Your task to perform on an android device: Show me popular videos on Youtube Image 0: 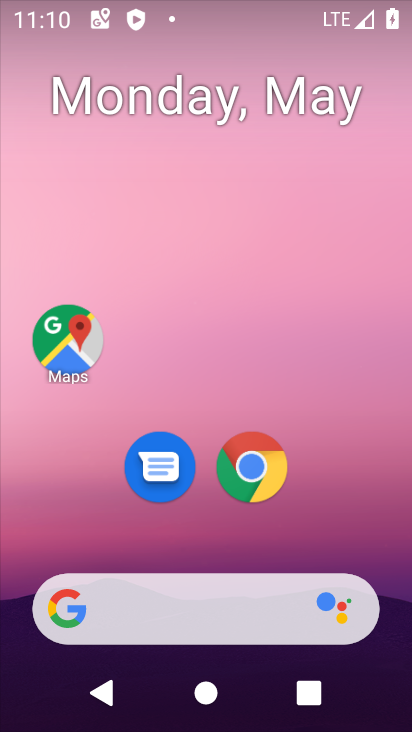
Step 0: drag from (383, 665) to (351, 67)
Your task to perform on an android device: Show me popular videos on Youtube Image 1: 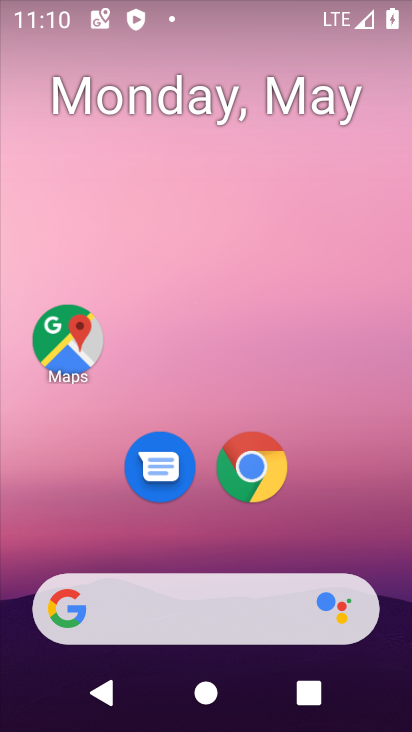
Step 1: drag from (394, 693) to (296, 3)
Your task to perform on an android device: Show me popular videos on Youtube Image 2: 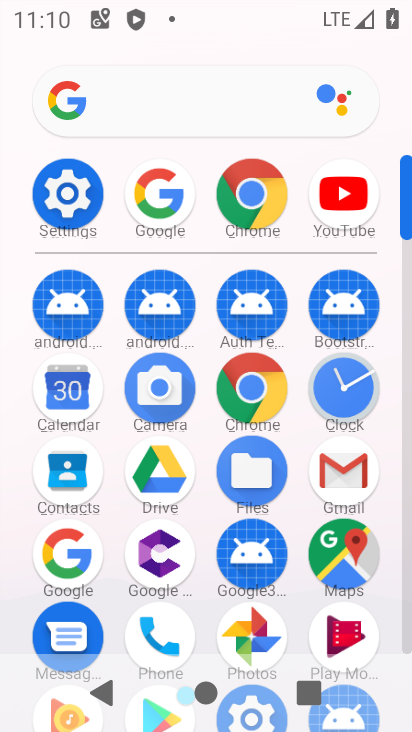
Step 2: click (355, 204)
Your task to perform on an android device: Show me popular videos on Youtube Image 3: 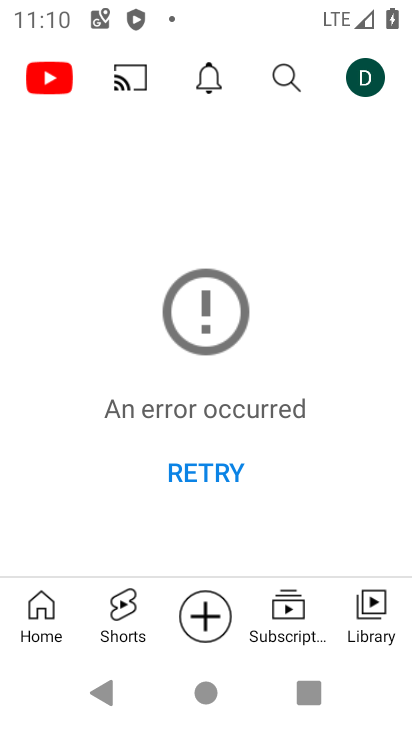
Step 3: click (376, 620)
Your task to perform on an android device: Show me popular videos on Youtube Image 4: 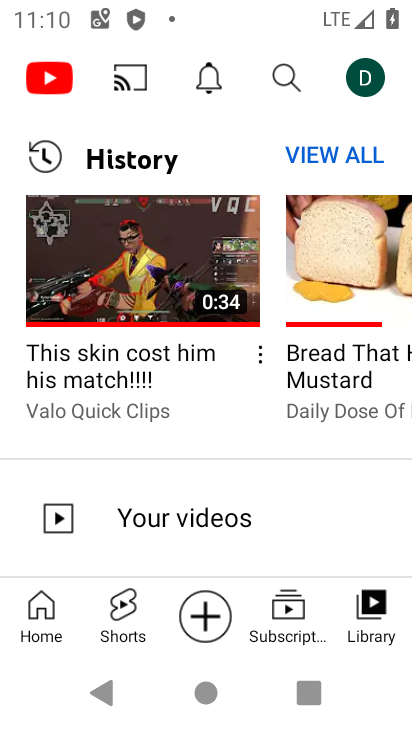
Step 4: click (285, 80)
Your task to perform on an android device: Show me popular videos on Youtube Image 5: 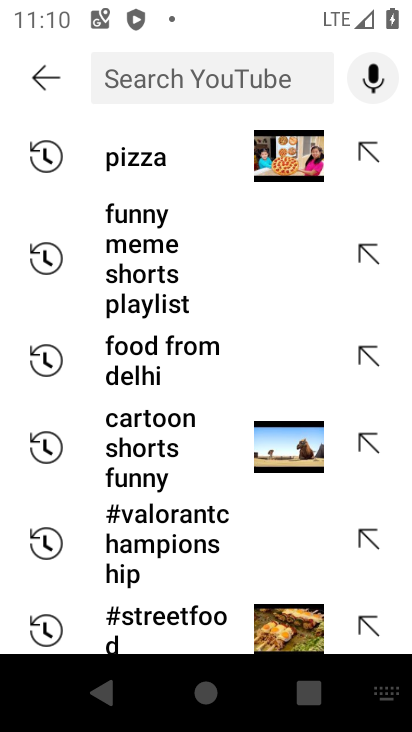
Step 5: type "popular videos"
Your task to perform on an android device: Show me popular videos on Youtube Image 6: 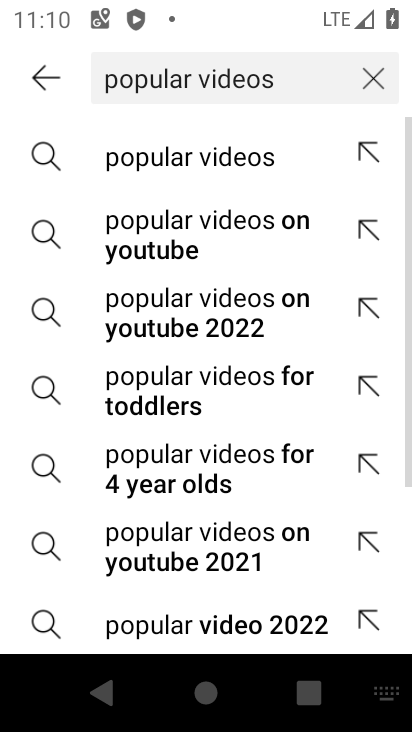
Step 6: click (208, 155)
Your task to perform on an android device: Show me popular videos on Youtube Image 7: 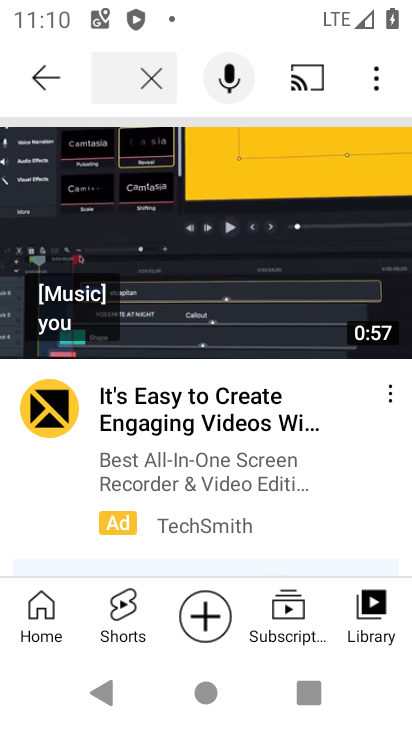
Step 7: task complete